Your task to perform on an android device: Open Google Image 0: 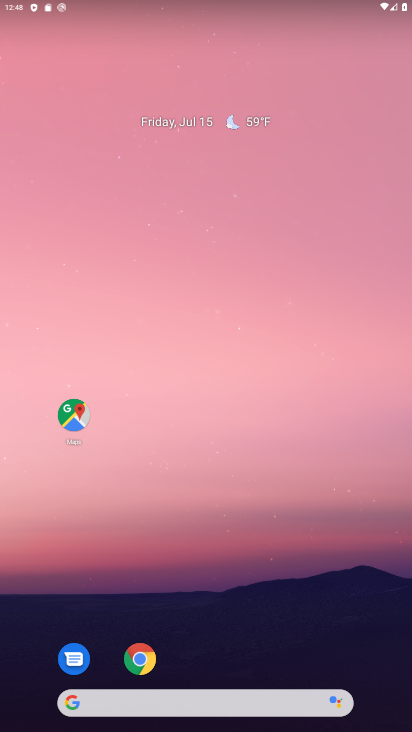
Step 0: drag from (210, 661) to (255, 167)
Your task to perform on an android device: Open Google Image 1: 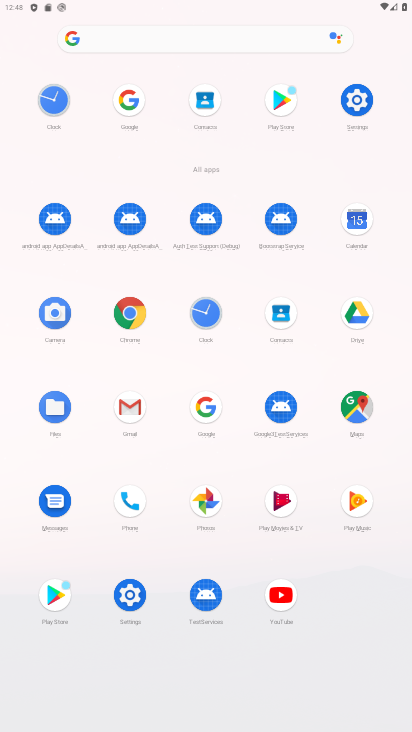
Step 1: click (130, 96)
Your task to perform on an android device: Open Google Image 2: 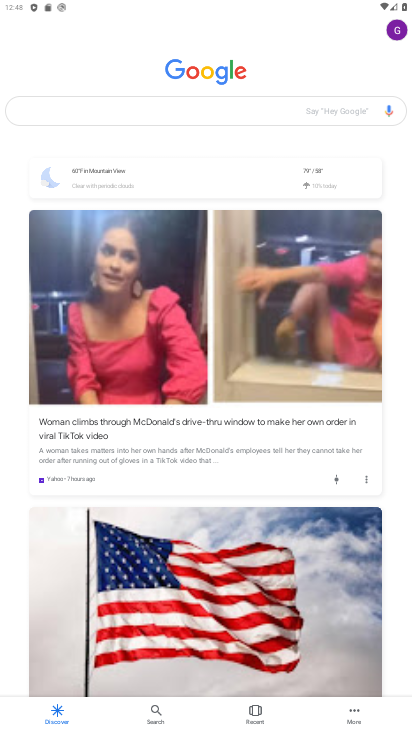
Step 2: task complete